Your task to perform on an android device: Open wifi settings Image 0: 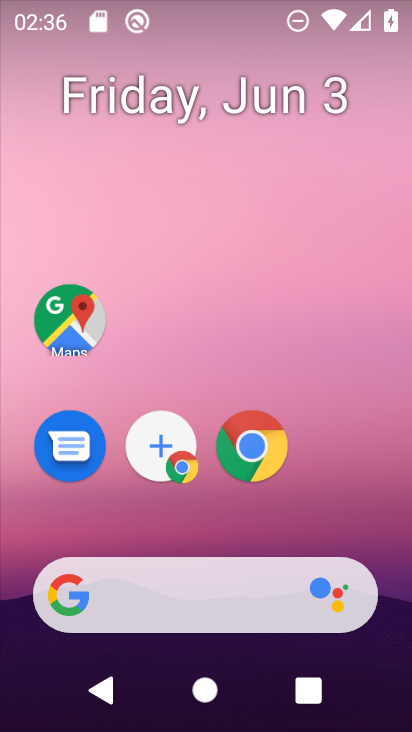
Step 0: drag from (181, 626) to (263, 48)
Your task to perform on an android device: Open wifi settings Image 1: 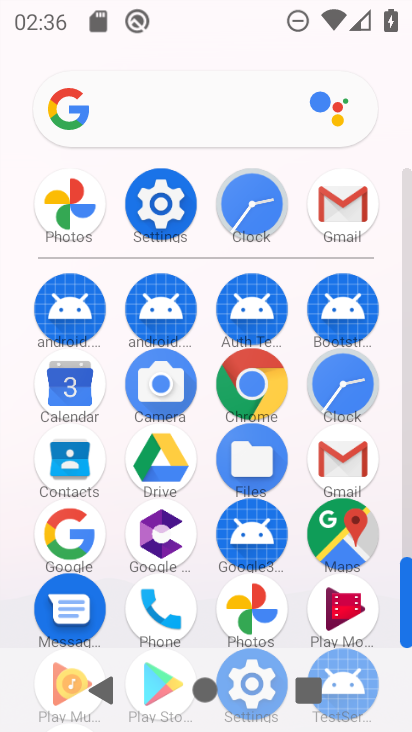
Step 1: click (162, 199)
Your task to perform on an android device: Open wifi settings Image 2: 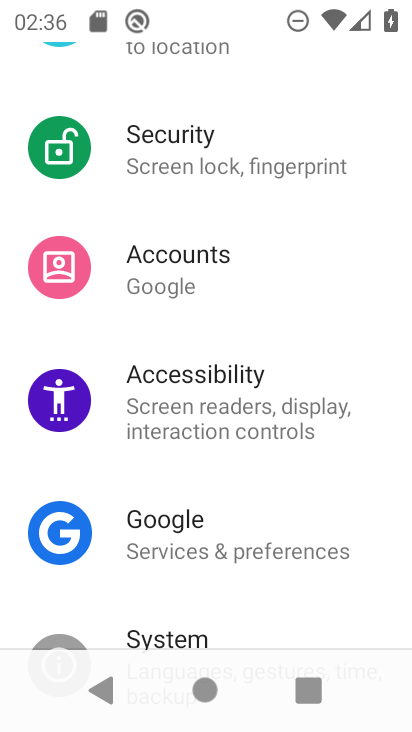
Step 2: drag from (270, 123) to (233, 593)
Your task to perform on an android device: Open wifi settings Image 3: 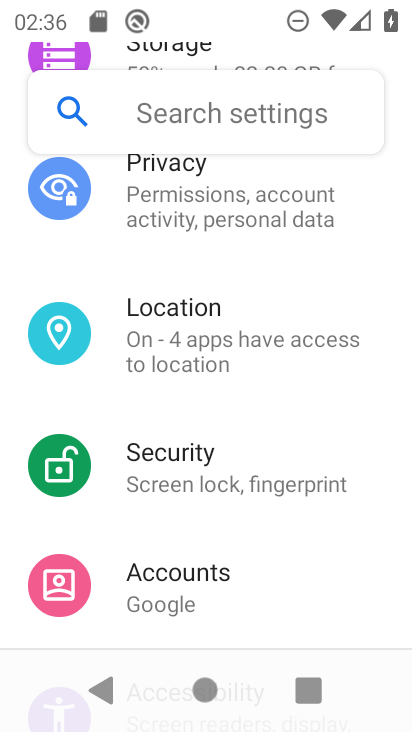
Step 3: drag from (234, 249) to (192, 703)
Your task to perform on an android device: Open wifi settings Image 4: 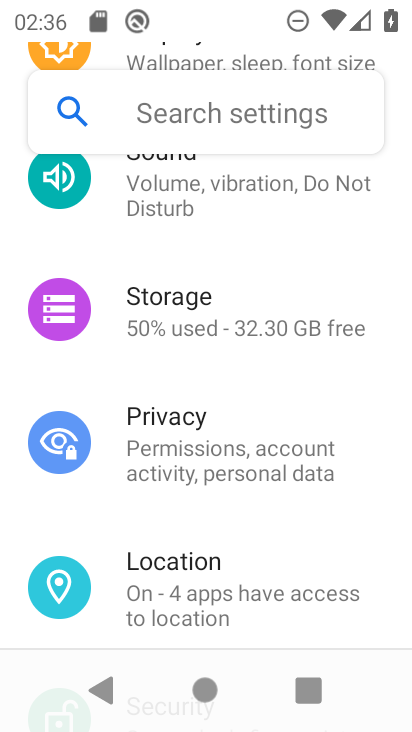
Step 4: drag from (321, 273) to (251, 705)
Your task to perform on an android device: Open wifi settings Image 5: 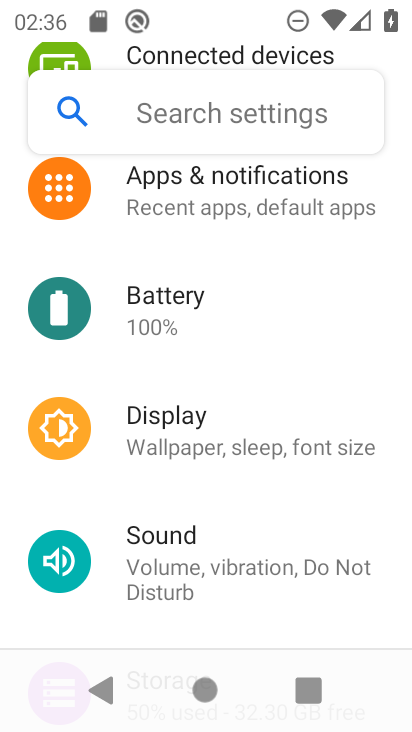
Step 5: drag from (296, 225) to (182, 722)
Your task to perform on an android device: Open wifi settings Image 6: 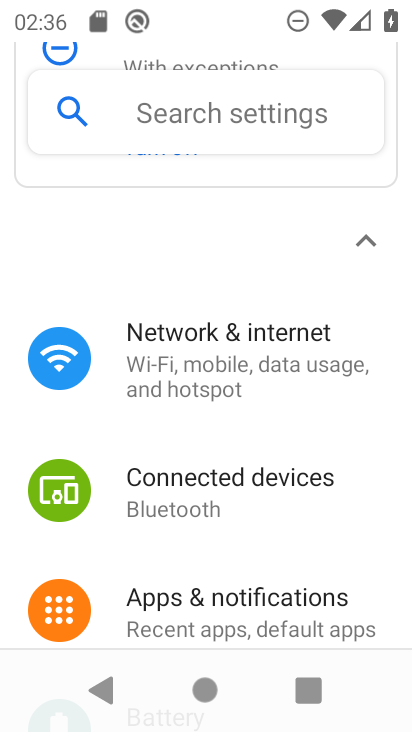
Step 6: click (246, 354)
Your task to perform on an android device: Open wifi settings Image 7: 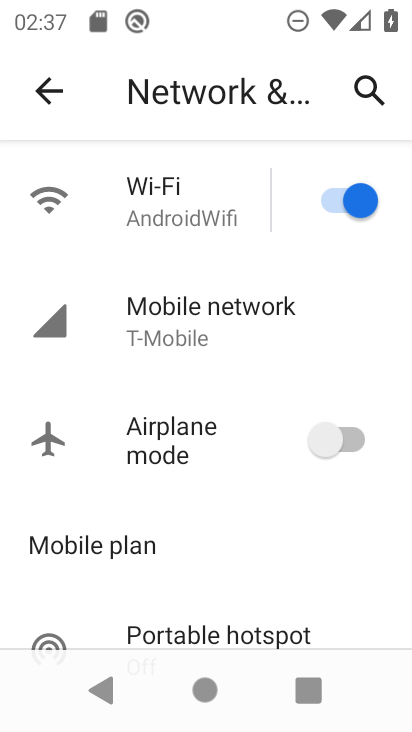
Step 7: click (180, 216)
Your task to perform on an android device: Open wifi settings Image 8: 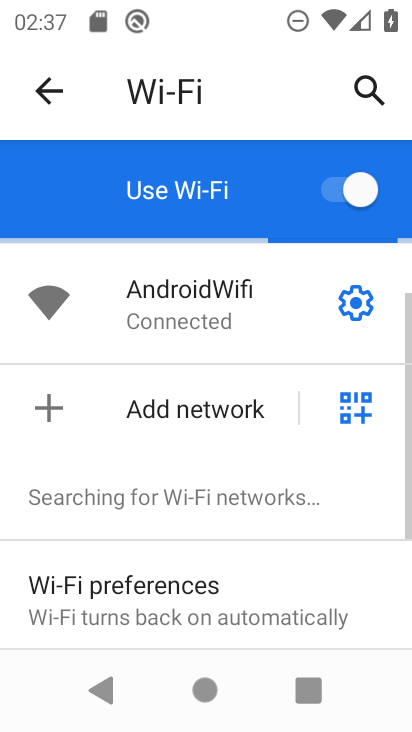
Step 8: click (359, 305)
Your task to perform on an android device: Open wifi settings Image 9: 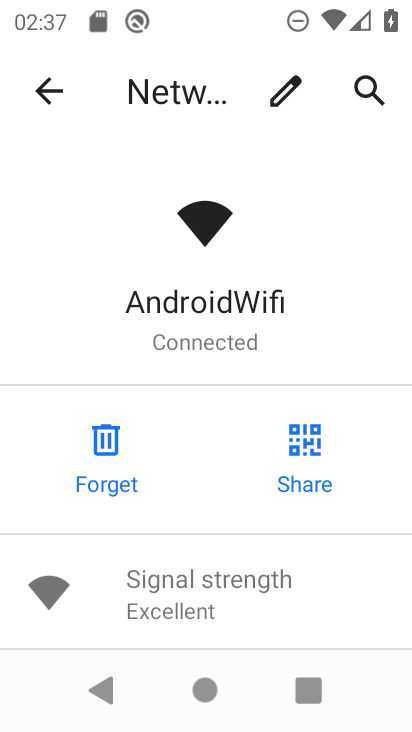
Step 9: task complete